Your task to perform on an android device: Show me recent news Image 0: 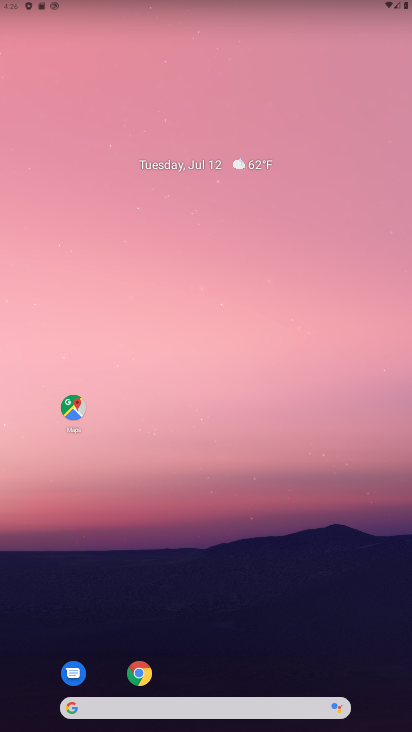
Step 0: drag from (3, 242) to (380, 286)
Your task to perform on an android device: Show me recent news Image 1: 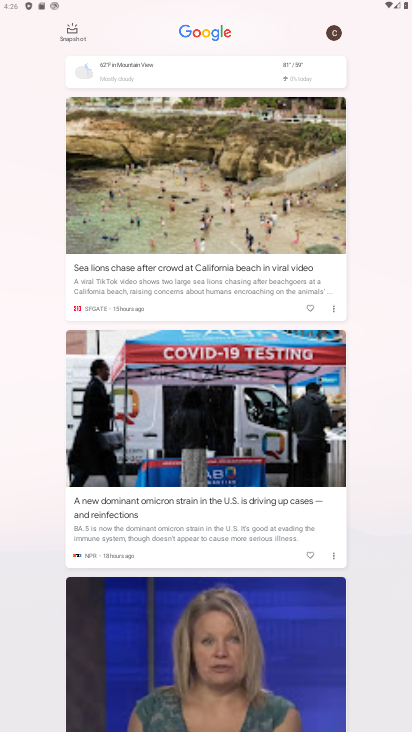
Step 1: task complete